Your task to perform on an android device: change notifications settings Image 0: 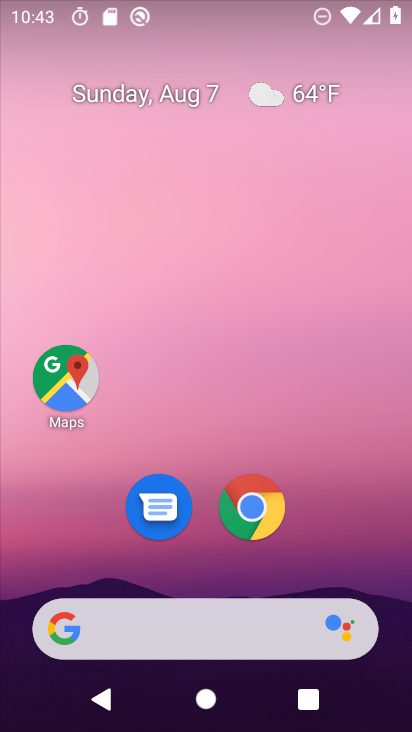
Step 0: drag from (355, 489) to (267, 54)
Your task to perform on an android device: change notifications settings Image 1: 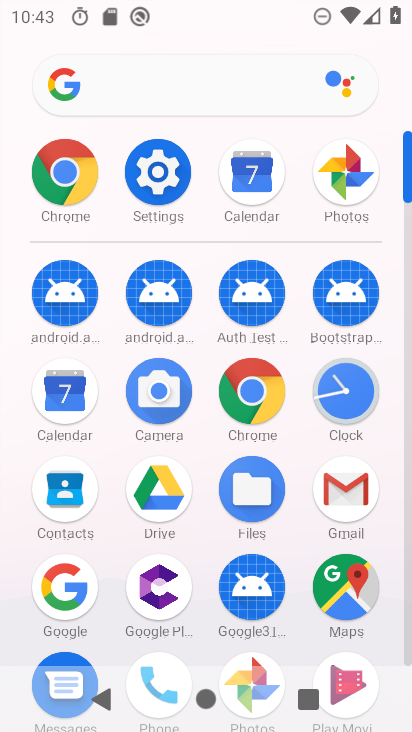
Step 1: drag from (296, 545) to (306, 211)
Your task to perform on an android device: change notifications settings Image 2: 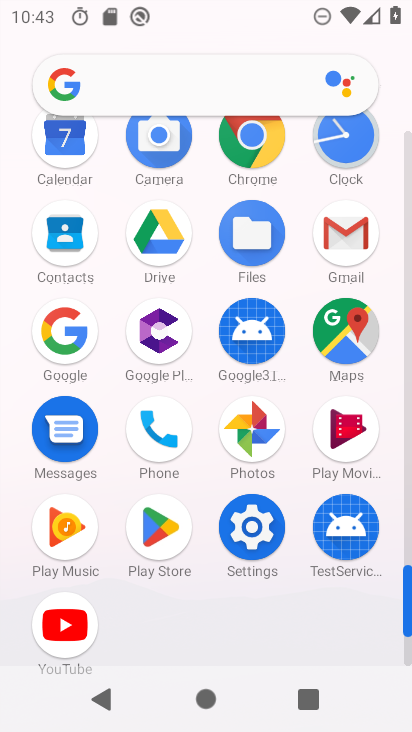
Step 2: click (244, 535)
Your task to perform on an android device: change notifications settings Image 3: 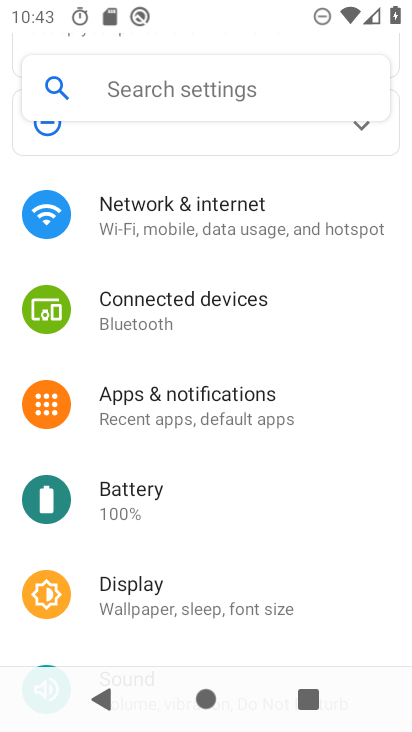
Step 3: click (185, 418)
Your task to perform on an android device: change notifications settings Image 4: 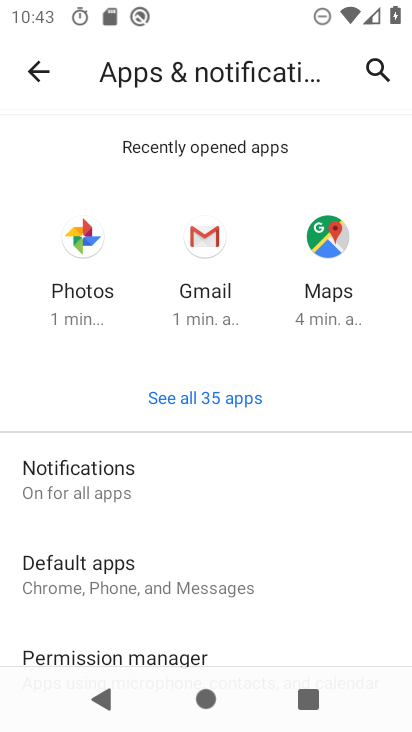
Step 4: click (85, 488)
Your task to perform on an android device: change notifications settings Image 5: 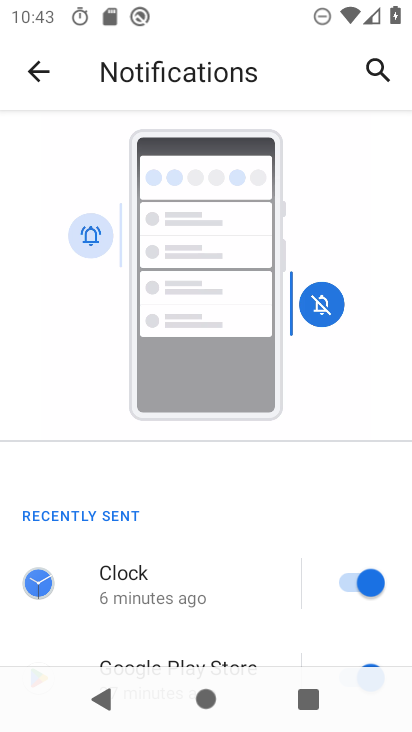
Step 5: task complete